Your task to perform on an android device: Open Reddit.com Image 0: 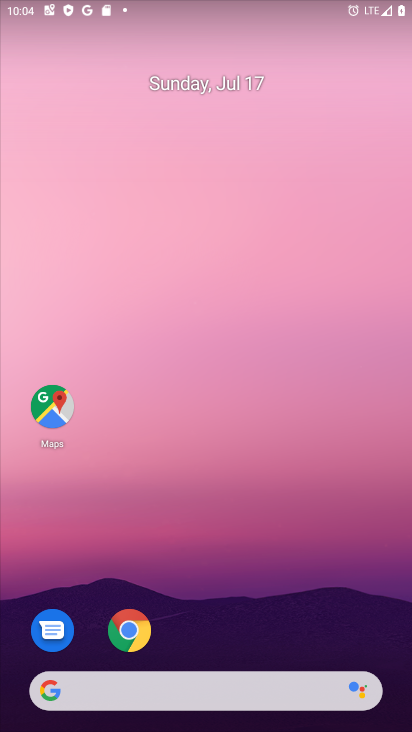
Step 0: press home button
Your task to perform on an android device: Open Reddit.com Image 1: 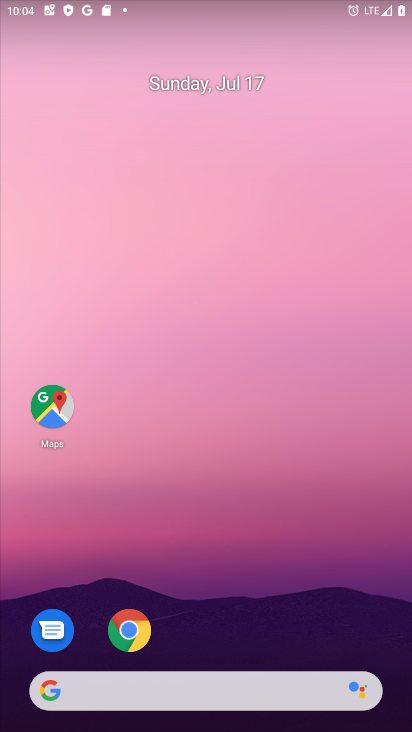
Step 1: click (126, 626)
Your task to perform on an android device: Open Reddit.com Image 2: 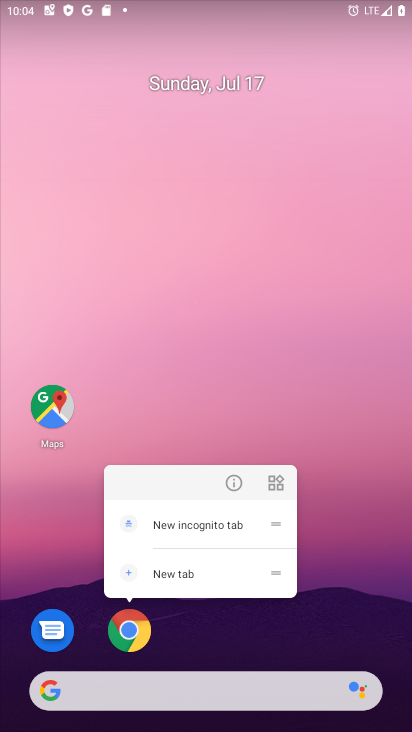
Step 2: click (126, 626)
Your task to perform on an android device: Open Reddit.com Image 3: 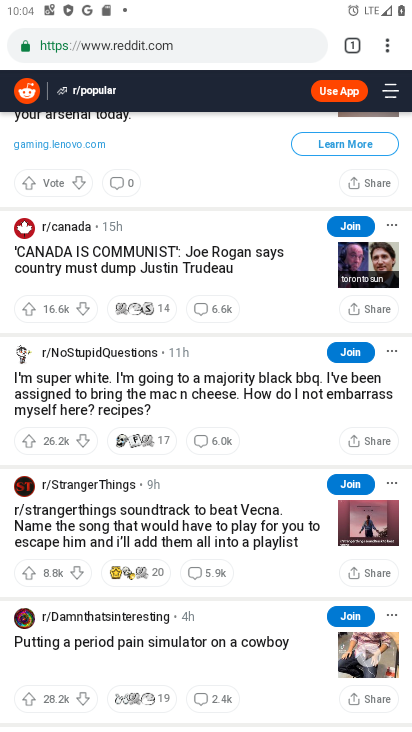
Step 3: task complete